Your task to perform on an android device: set the stopwatch Image 0: 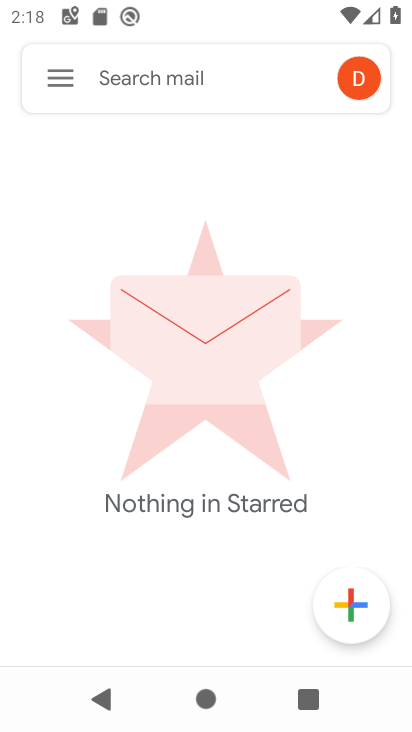
Step 0: press home button
Your task to perform on an android device: set the stopwatch Image 1: 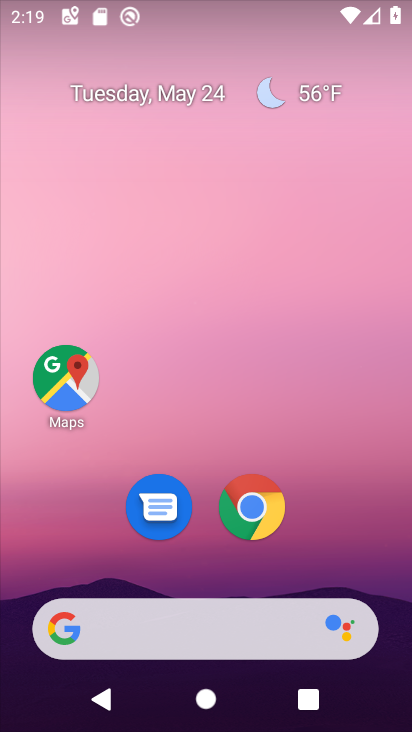
Step 1: drag from (219, 561) to (244, 54)
Your task to perform on an android device: set the stopwatch Image 2: 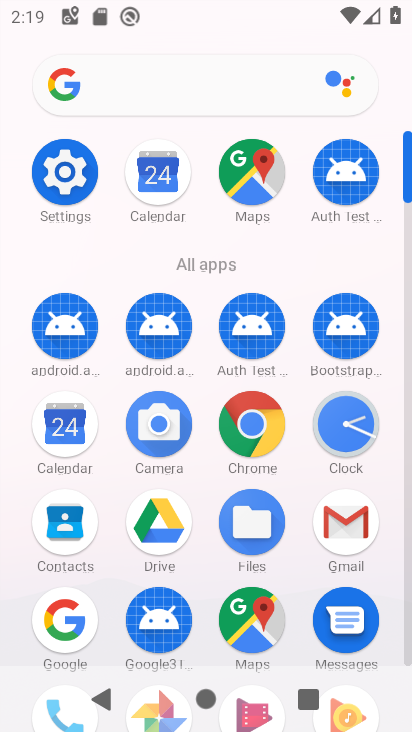
Step 2: click (343, 415)
Your task to perform on an android device: set the stopwatch Image 3: 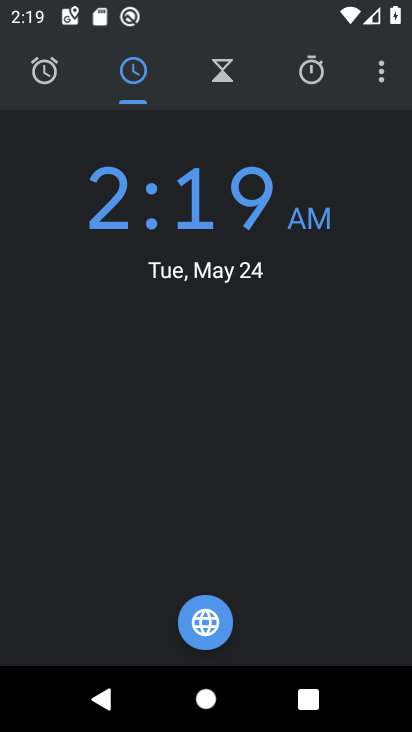
Step 3: click (310, 67)
Your task to perform on an android device: set the stopwatch Image 4: 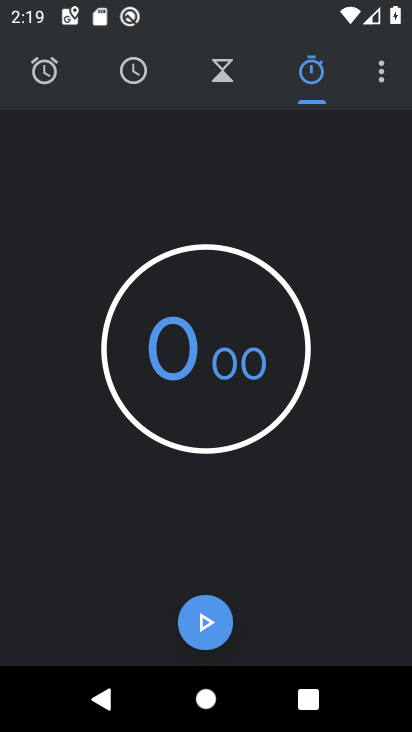
Step 4: click (206, 622)
Your task to perform on an android device: set the stopwatch Image 5: 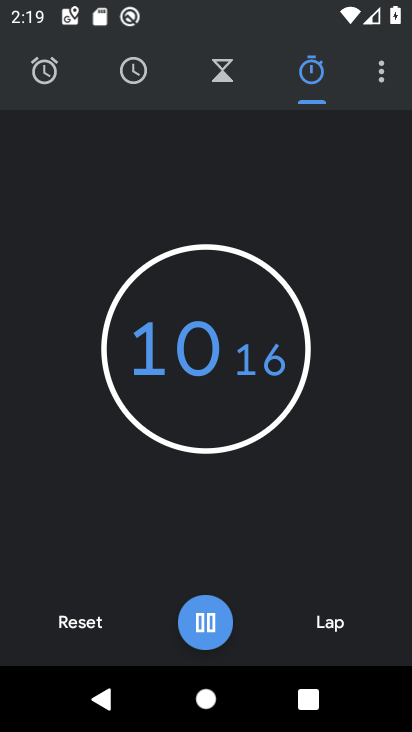
Step 5: click (77, 623)
Your task to perform on an android device: set the stopwatch Image 6: 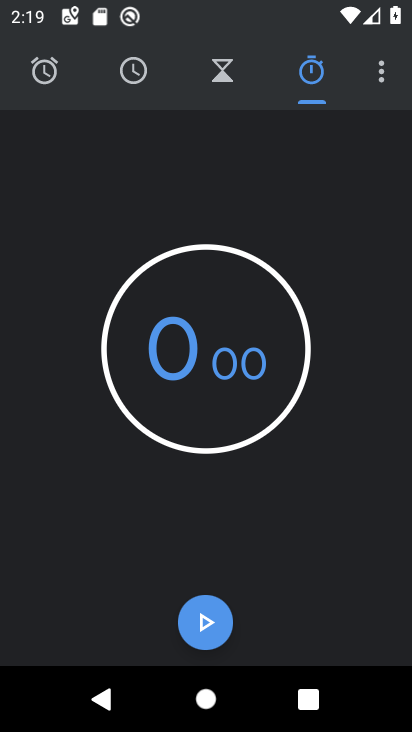
Step 6: click (205, 619)
Your task to perform on an android device: set the stopwatch Image 7: 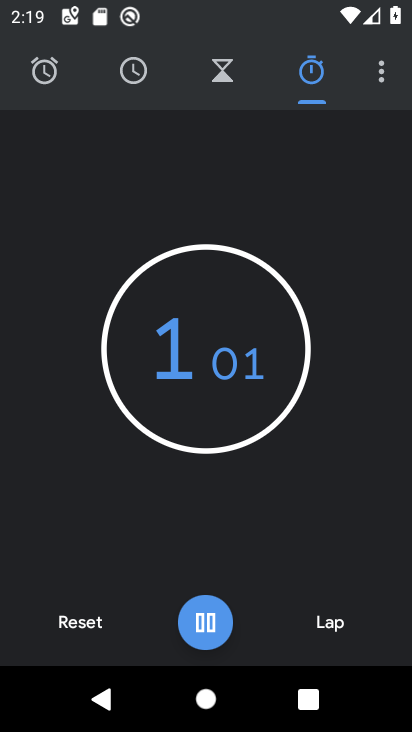
Step 7: task complete